Your task to perform on an android device: turn off improve location accuracy Image 0: 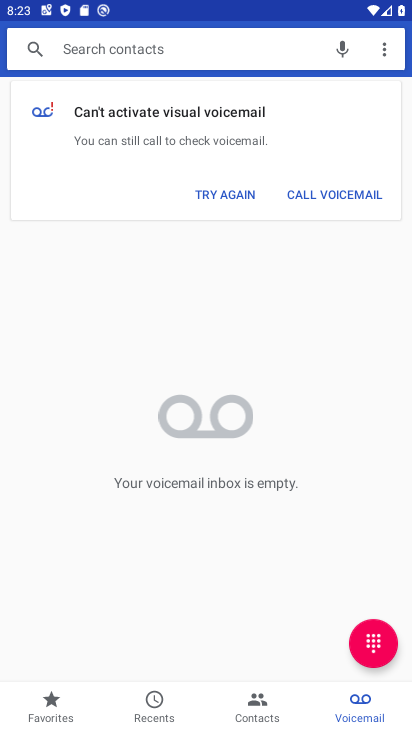
Step 0: press home button
Your task to perform on an android device: turn off improve location accuracy Image 1: 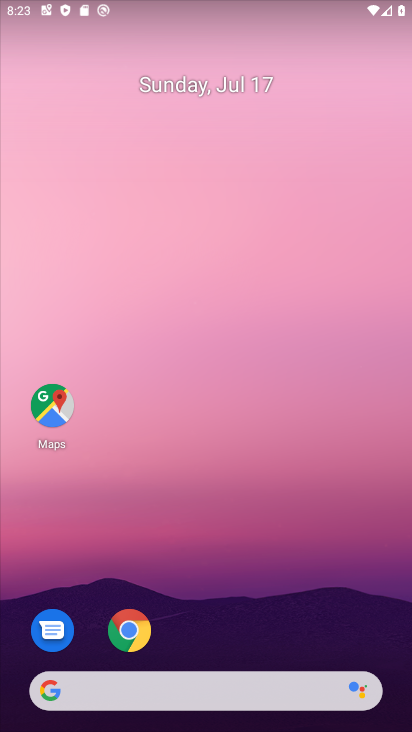
Step 1: drag from (87, 722) to (209, 24)
Your task to perform on an android device: turn off improve location accuracy Image 2: 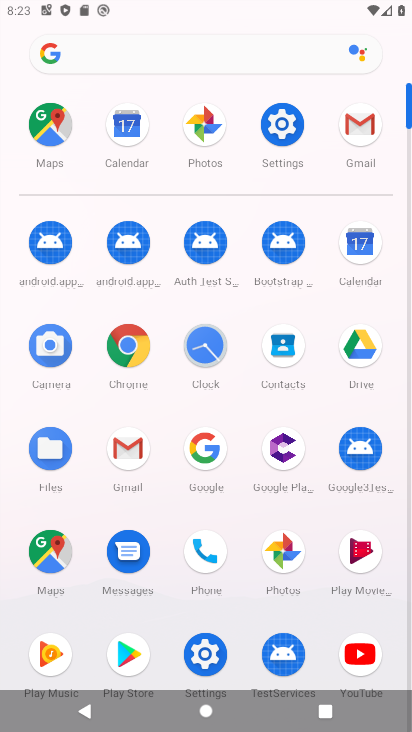
Step 2: click (277, 114)
Your task to perform on an android device: turn off improve location accuracy Image 3: 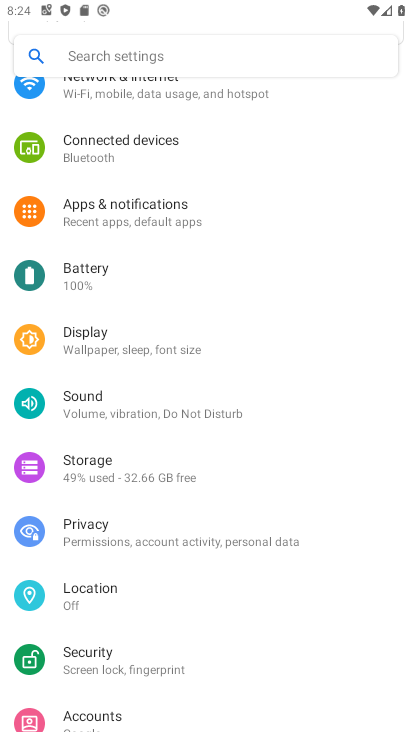
Step 3: click (119, 607)
Your task to perform on an android device: turn off improve location accuracy Image 4: 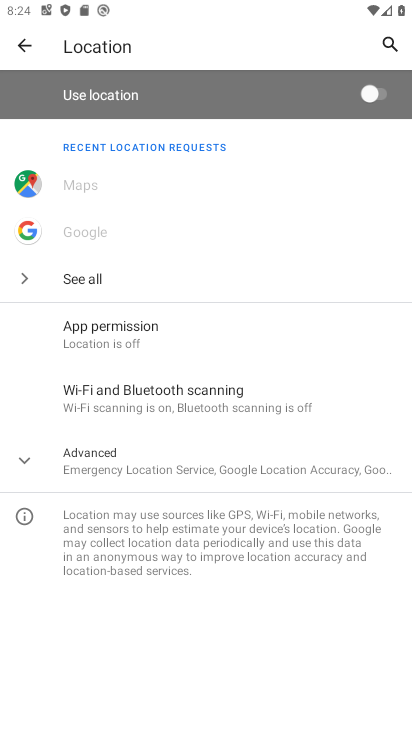
Step 4: click (215, 474)
Your task to perform on an android device: turn off improve location accuracy Image 5: 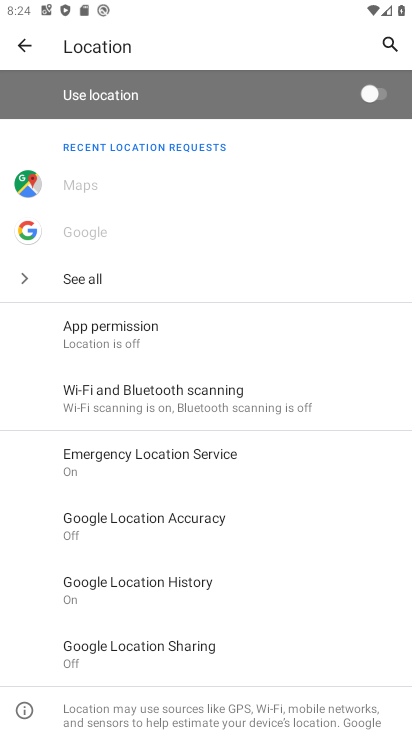
Step 5: click (211, 527)
Your task to perform on an android device: turn off improve location accuracy Image 6: 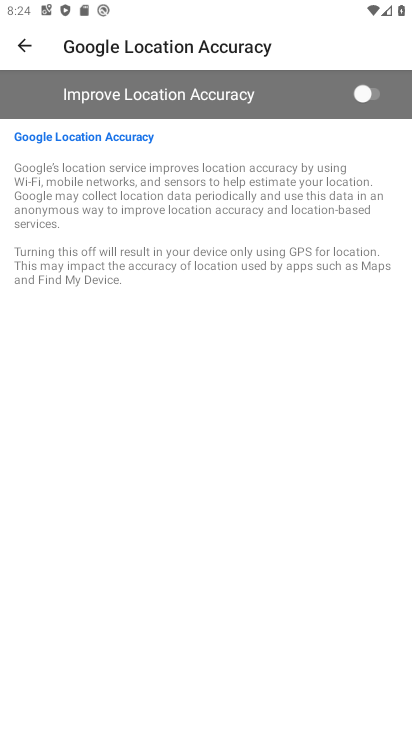
Step 6: task complete